Your task to perform on an android device: turn on sleep mode Image 0: 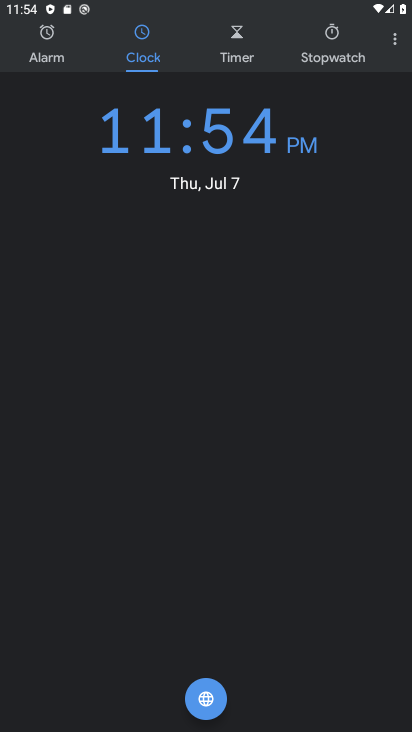
Step 0: press home button
Your task to perform on an android device: turn on sleep mode Image 1: 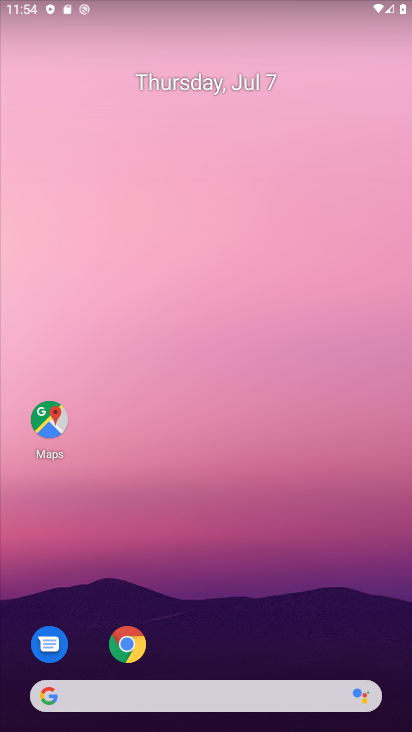
Step 1: drag from (220, 639) to (158, 14)
Your task to perform on an android device: turn on sleep mode Image 2: 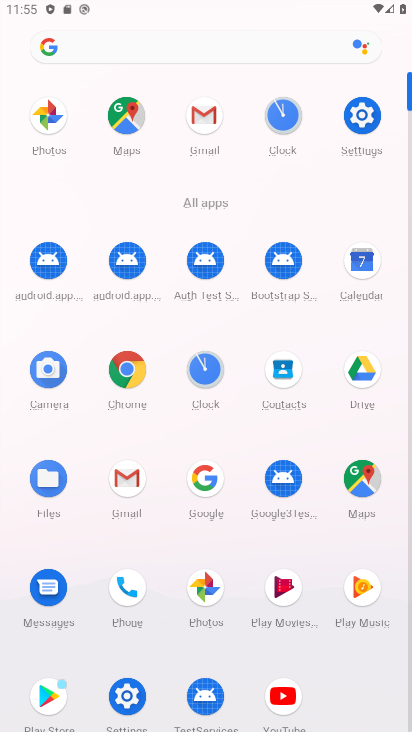
Step 2: click (121, 694)
Your task to perform on an android device: turn on sleep mode Image 3: 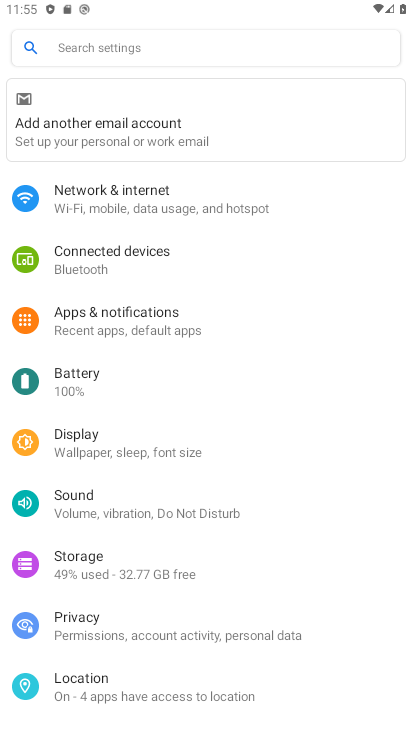
Step 3: click (239, 55)
Your task to perform on an android device: turn on sleep mode Image 4: 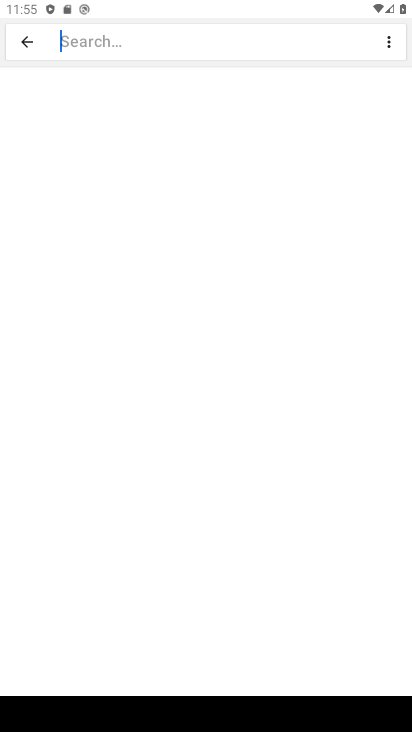
Step 4: type "sleep mode"
Your task to perform on an android device: turn on sleep mode Image 5: 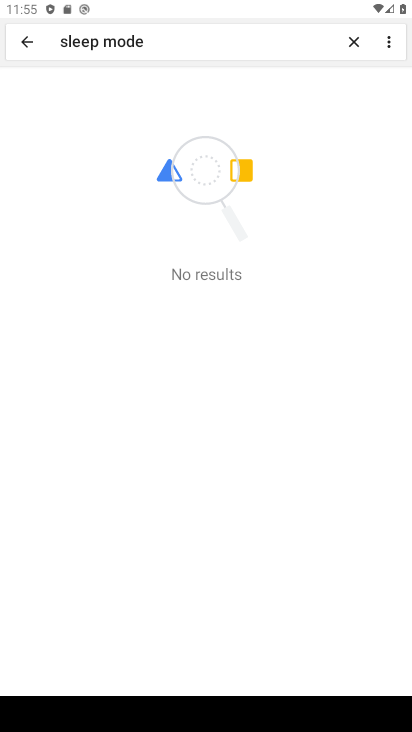
Step 5: task complete